Your task to perform on an android device: open the mobile data screen to see how much data has been used Image 0: 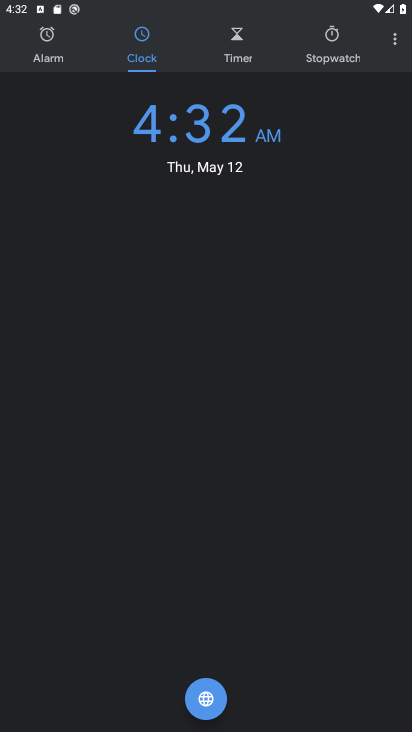
Step 0: press home button
Your task to perform on an android device: open the mobile data screen to see how much data has been used Image 1: 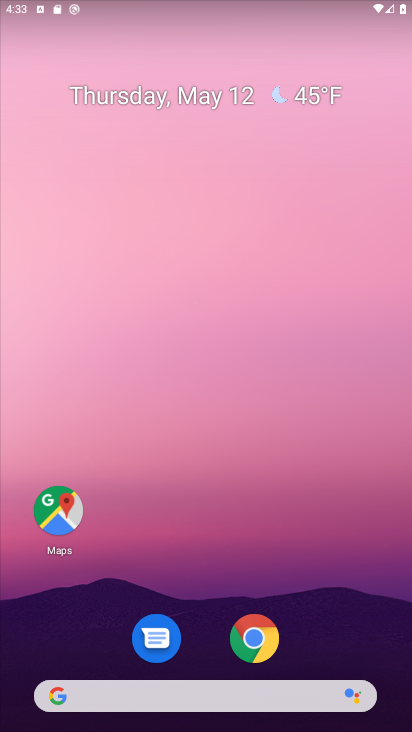
Step 1: drag from (336, 581) to (213, 187)
Your task to perform on an android device: open the mobile data screen to see how much data has been used Image 2: 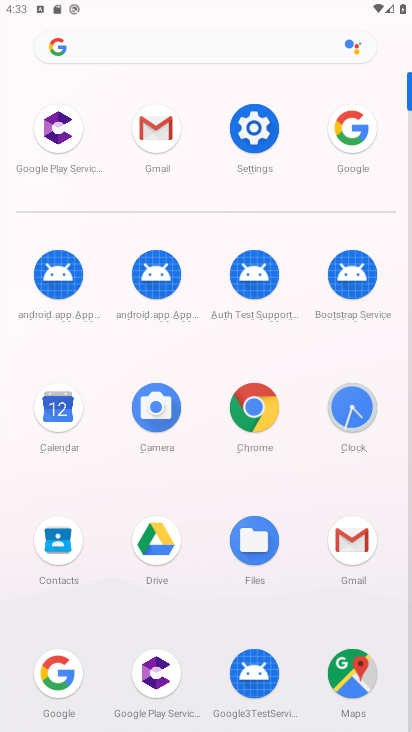
Step 2: click (255, 125)
Your task to perform on an android device: open the mobile data screen to see how much data has been used Image 3: 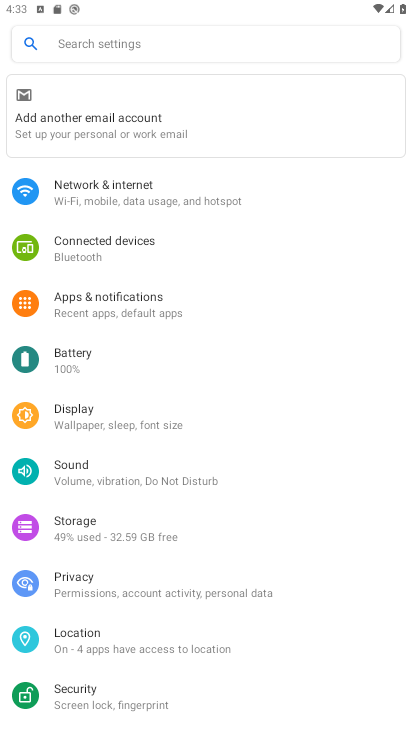
Step 3: click (123, 191)
Your task to perform on an android device: open the mobile data screen to see how much data has been used Image 4: 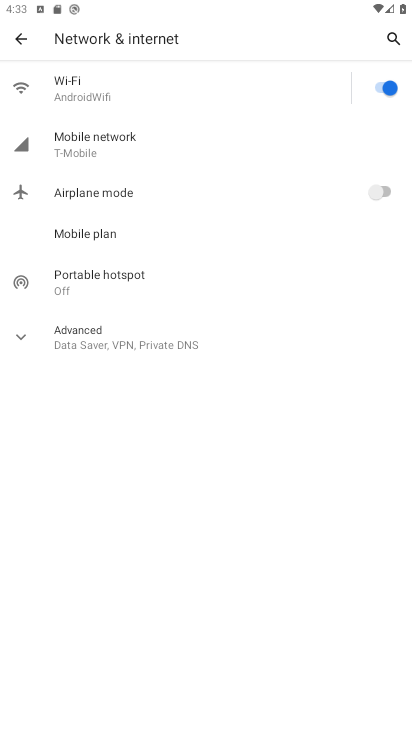
Step 4: click (95, 150)
Your task to perform on an android device: open the mobile data screen to see how much data has been used Image 5: 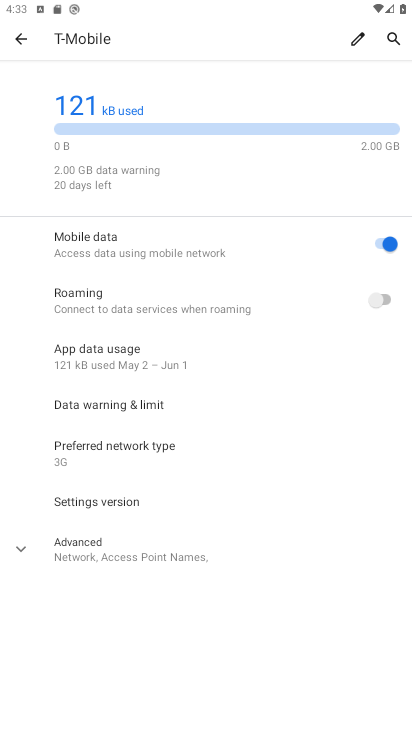
Step 5: task complete